Your task to perform on an android device: Check the news Image 0: 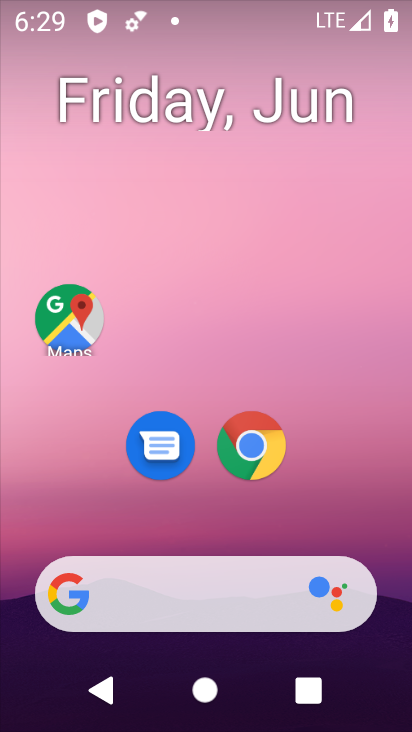
Step 0: click (210, 591)
Your task to perform on an android device: Check the news Image 1: 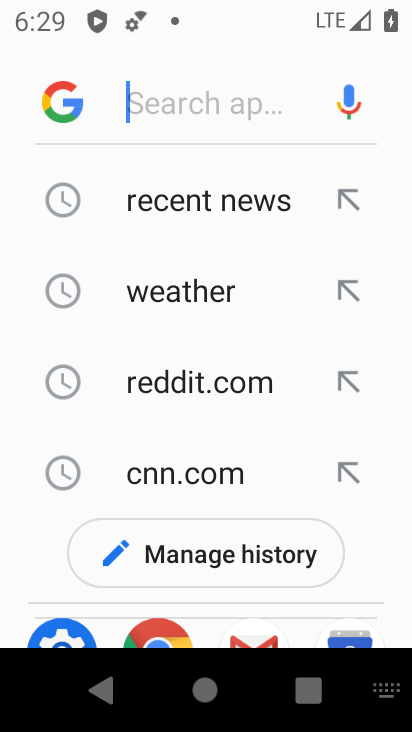
Step 1: click (177, 143)
Your task to perform on an android device: Check the news Image 2: 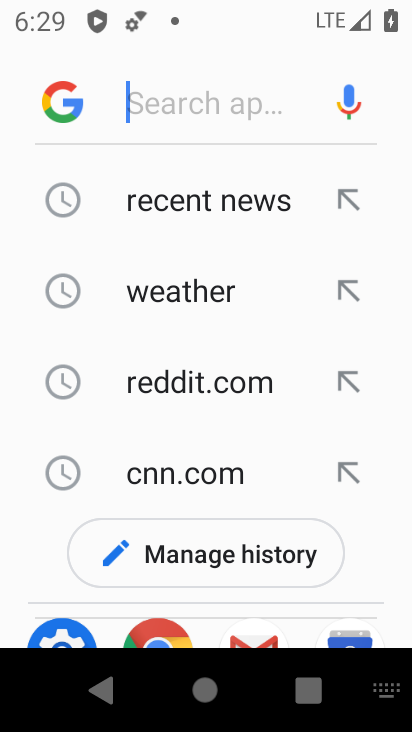
Step 2: type "news"
Your task to perform on an android device: Check the news Image 3: 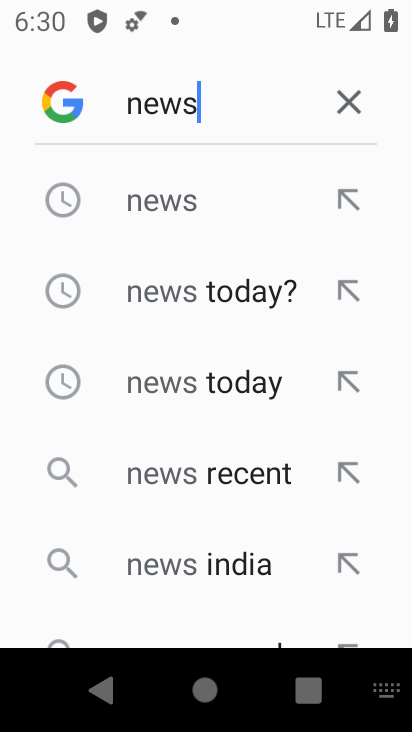
Step 3: click (178, 212)
Your task to perform on an android device: Check the news Image 4: 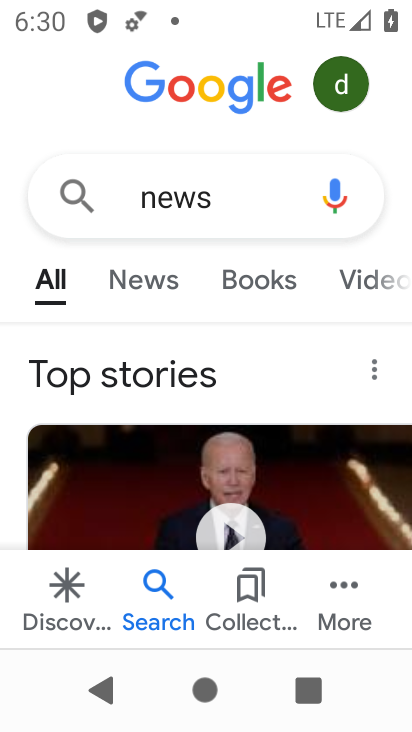
Step 4: task complete